Your task to perform on an android device: turn on notifications settings in the gmail app Image 0: 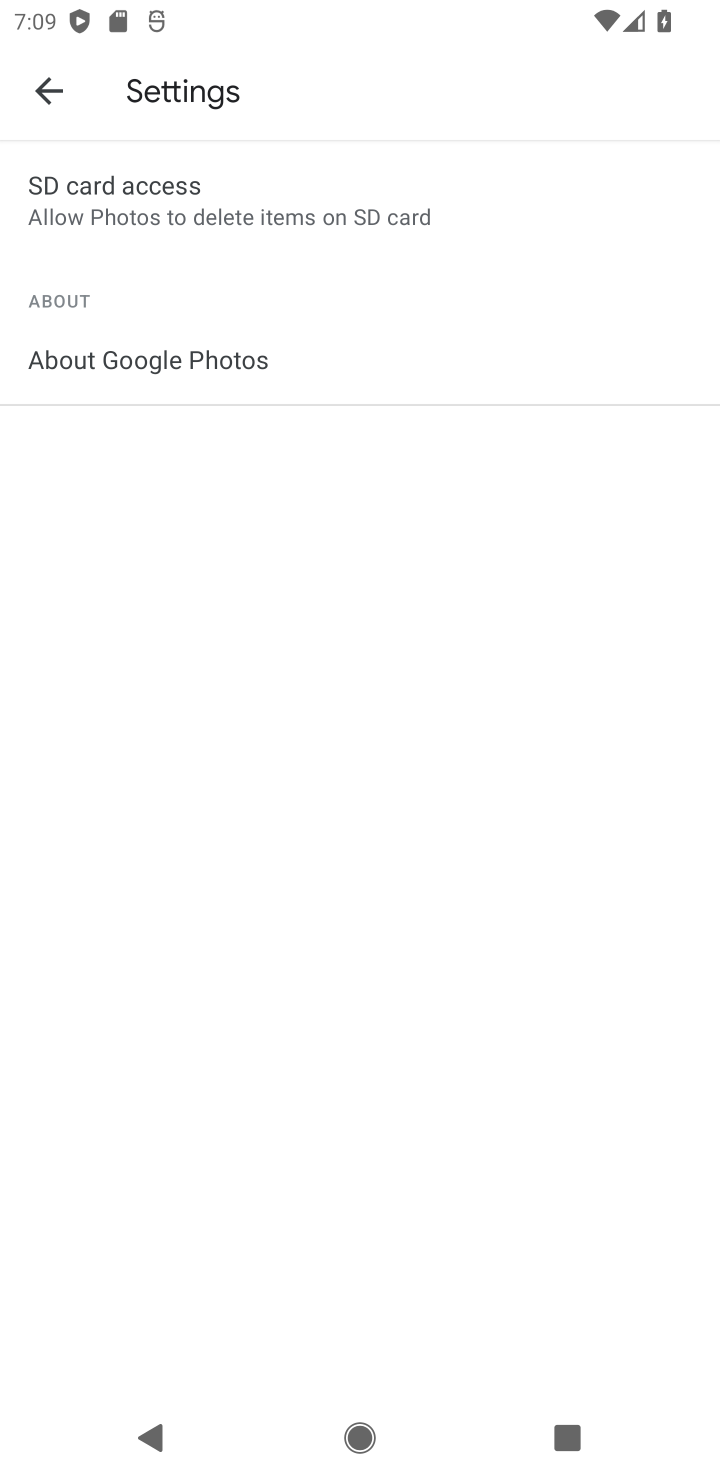
Step 0: press home button
Your task to perform on an android device: turn on notifications settings in the gmail app Image 1: 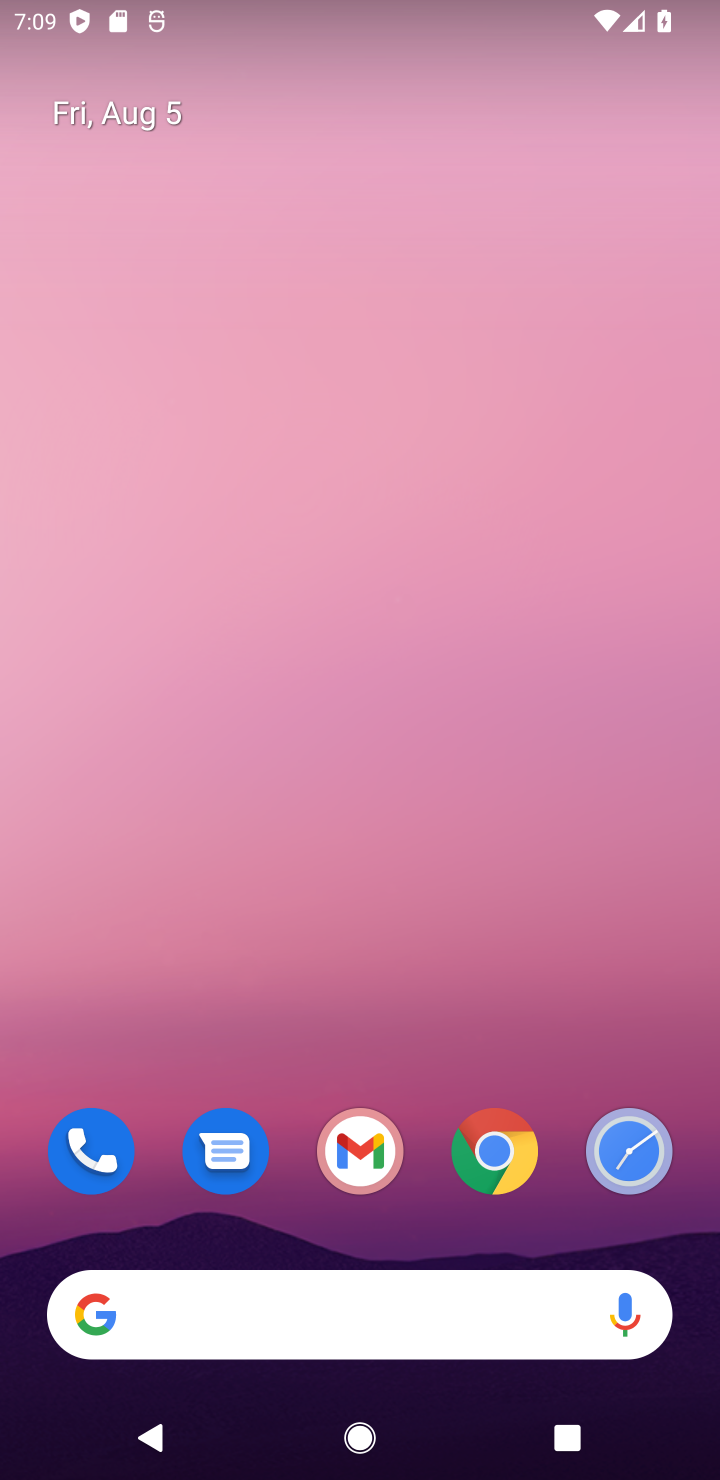
Step 1: click (379, 1163)
Your task to perform on an android device: turn on notifications settings in the gmail app Image 2: 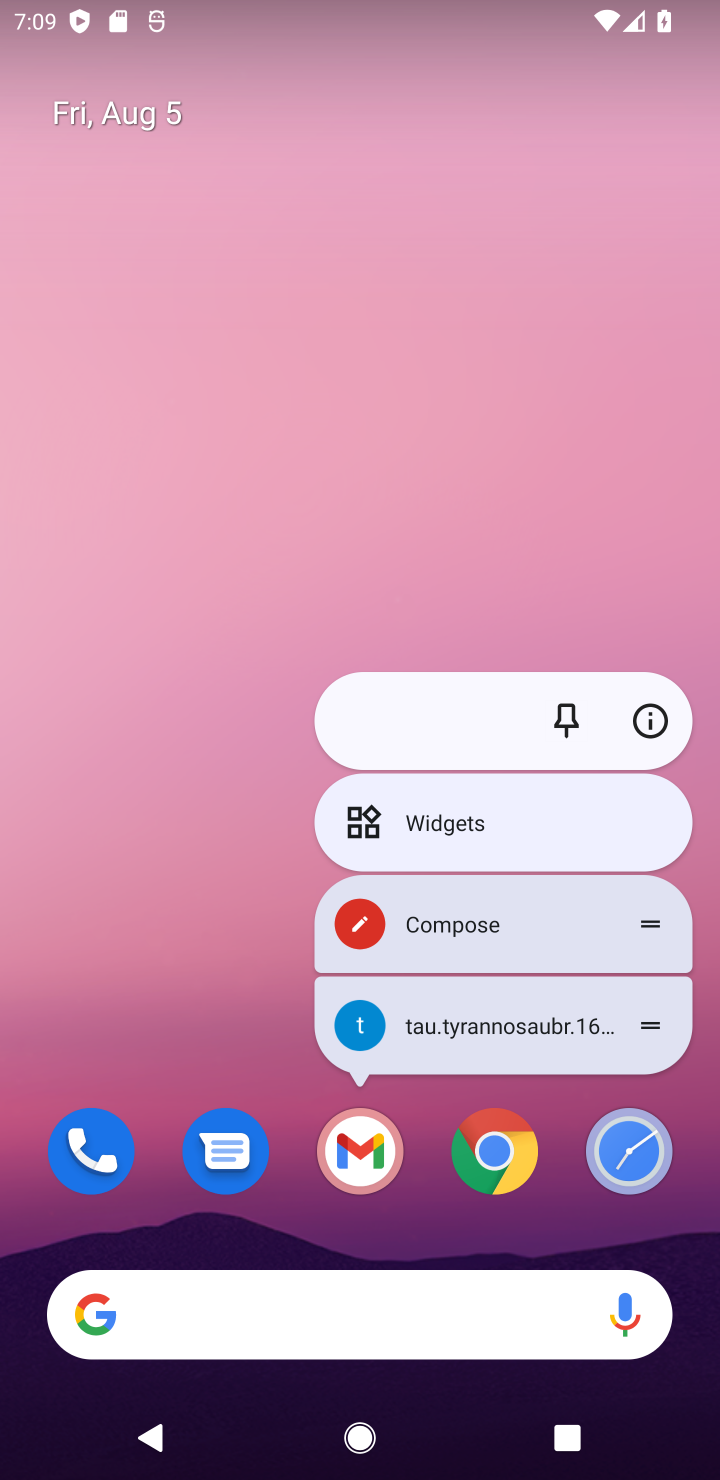
Step 2: click (649, 724)
Your task to perform on an android device: turn on notifications settings in the gmail app Image 3: 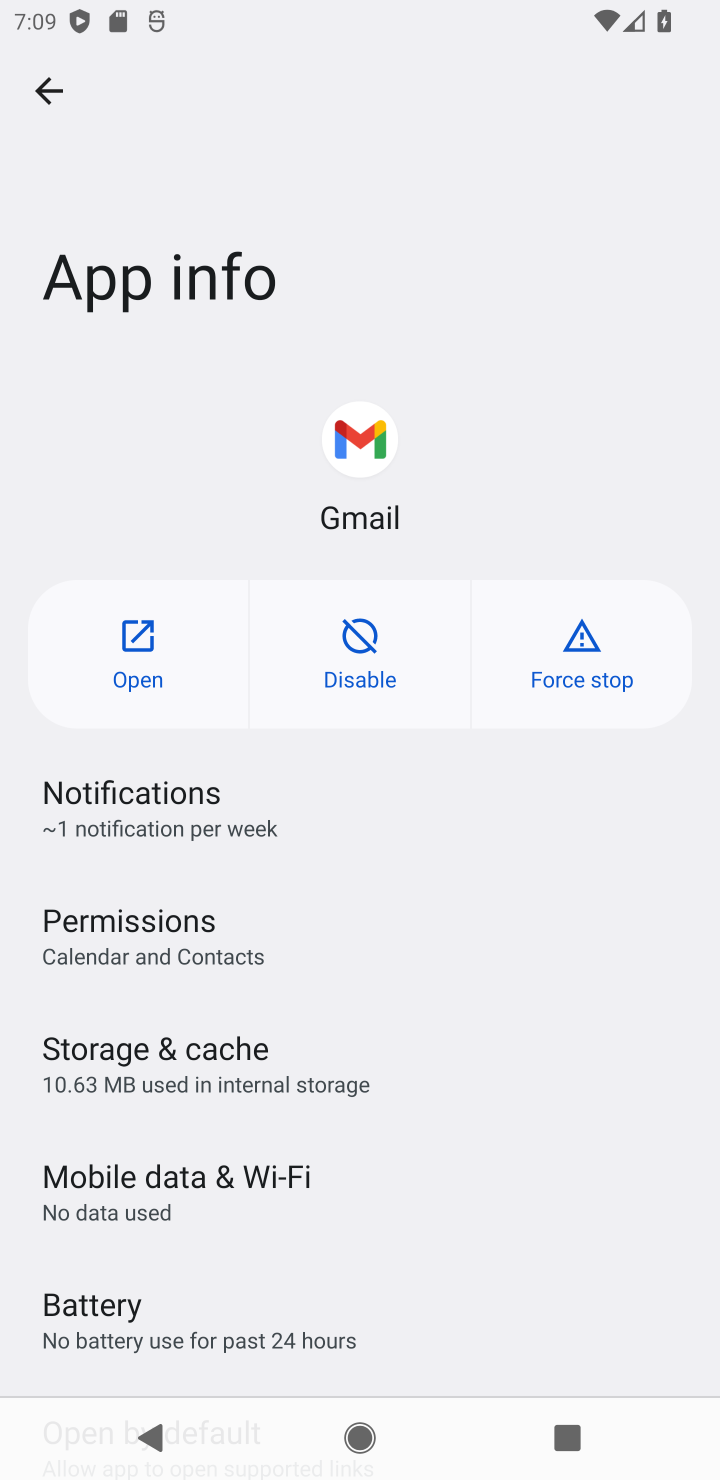
Step 3: click (259, 807)
Your task to perform on an android device: turn on notifications settings in the gmail app Image 4: 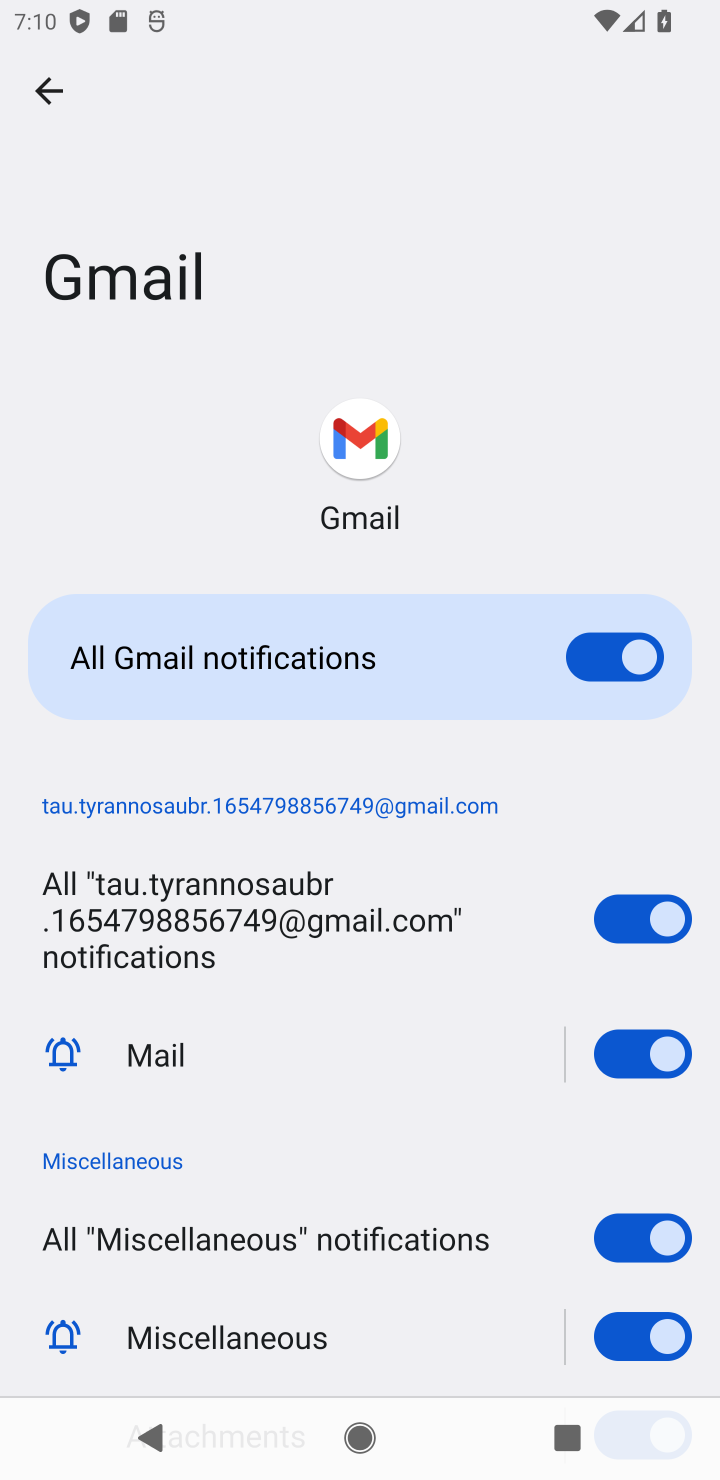
Step 4: task complete